Your task to perform on an android device: toggle data saver in the chrome app Image 0: 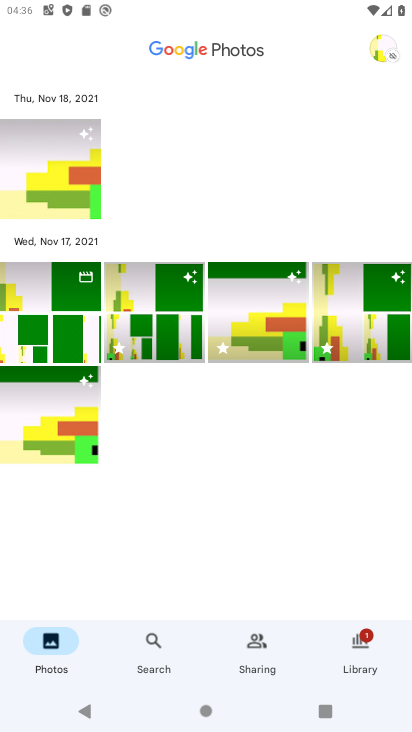
Step 0: press home button
Your task to perform on an android device: toggle data saver in the chrome app Image 1: 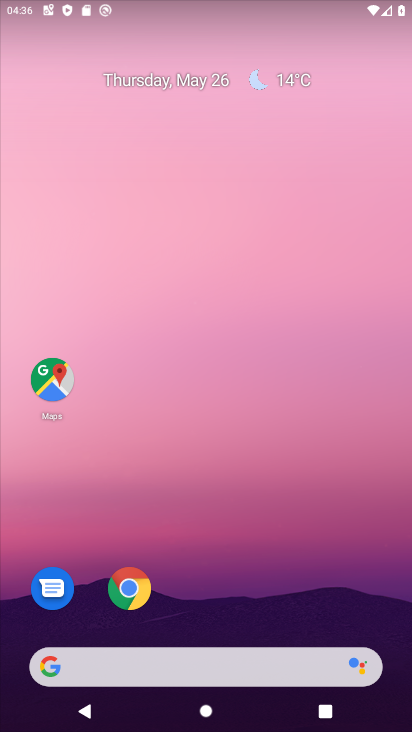
Step 1: drag from (231, 571) to (227, 134)
Your task to perform on an android device: toggle data saver in the chrome app Image 2: 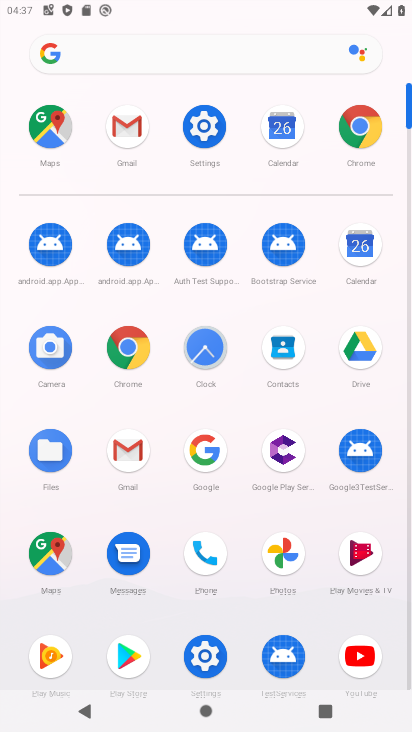
Step 2: click (135, 346)
Your task to perform on an android device: toggle data saver in the chrome app Image 3: 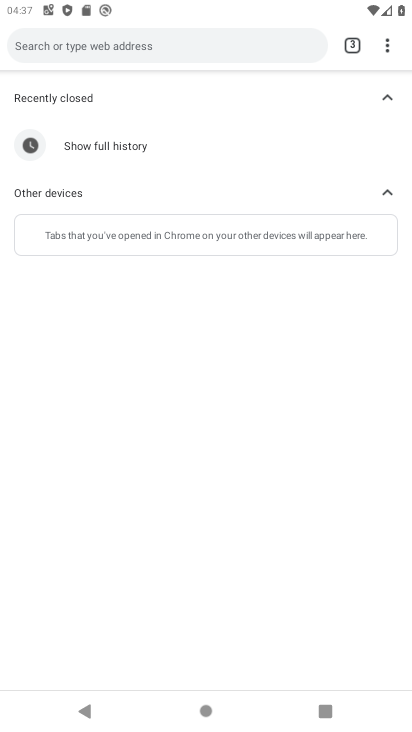
Step 3: click (391, 50)
Your task to perform on an android device: toggle data saver in the chrome app Image 4: 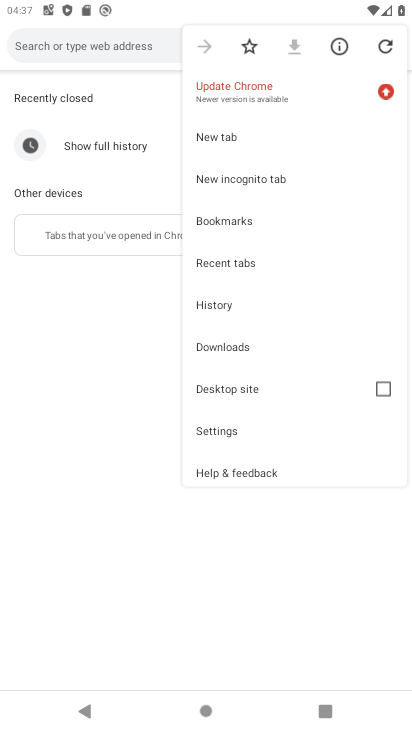
Step 4: click (248, 425)
Your task to perform on an android device: toggle data saver in the chrome app Image 5: 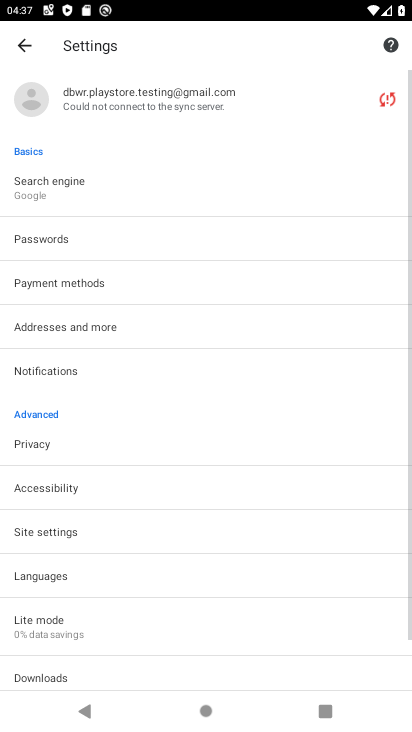
Step 5: drag from (194, 573) to (205, 326)
Your task to perform on an android device: toggle data saver in the chrome app Image 6: 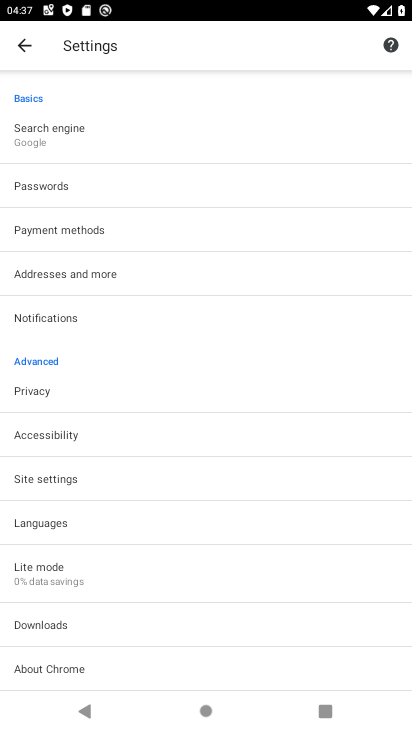
Step 6: click (151, 559)
Your task to perform on an android device: toggle data saver in the chrome app Image 7: 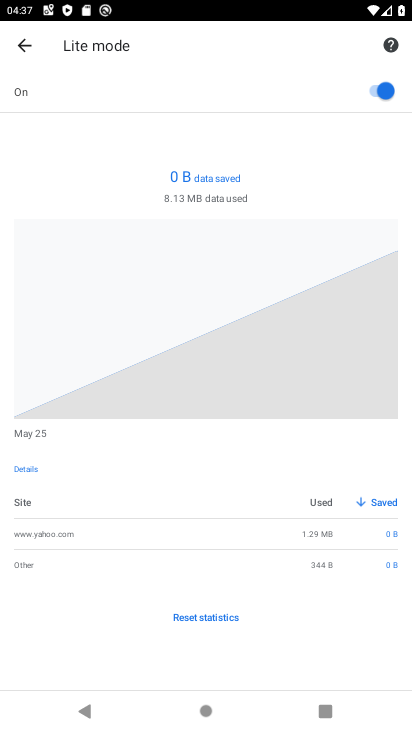
Step 7: click (390, 74)
Your task to perform on an android device: toggle data saver in the chrome app Image 8: 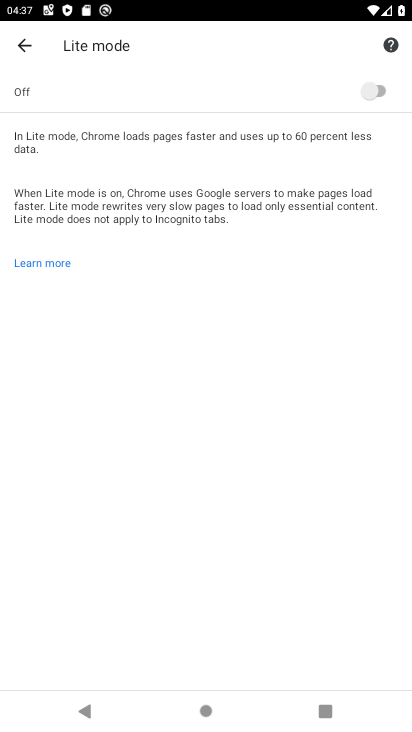
Step 8: task complete